Your task to perform on an android device: install app "Messenger Lite" Image 0: 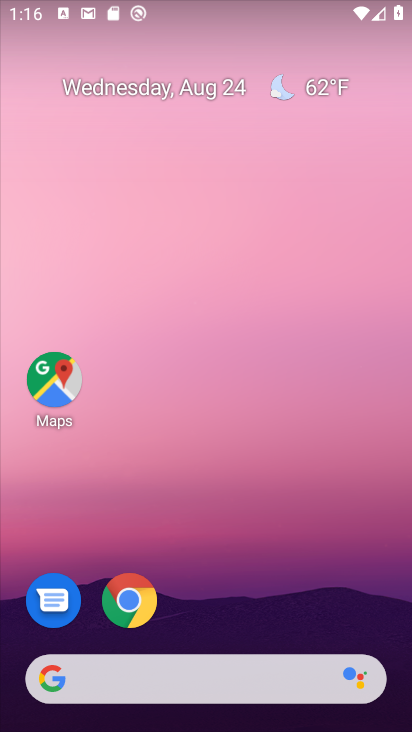
Step 0: drag from (286, 614) to (219, 99)
Your task to perform on an android device: install app "Messenger Lite" Image 1: 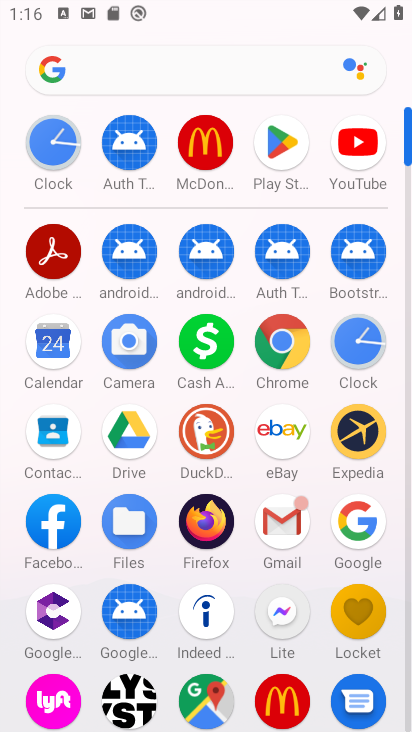
Step 1: click (293, 160)
Your task to perform on an android device: install app "Messenger Lite" Image 2: 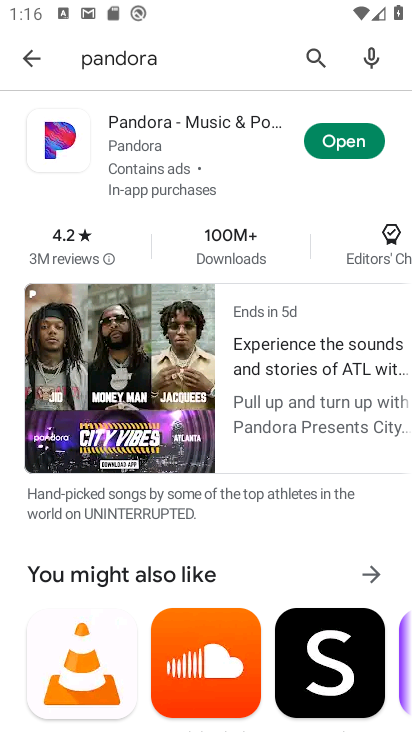
Step 2: click (309, 68)
Your task to perform on an android device: install app "Messenger Lite" Image 3: 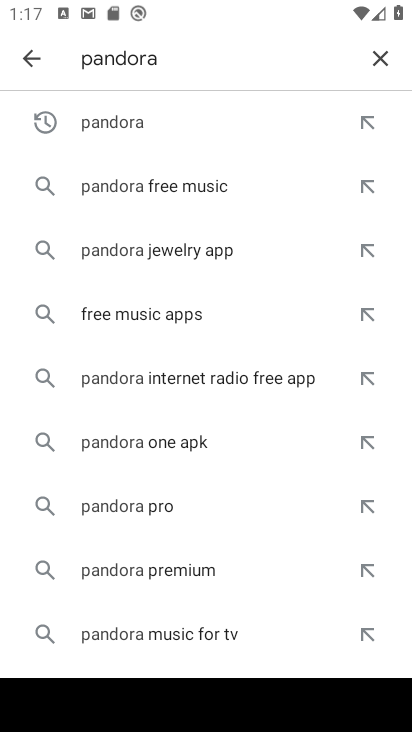
Step 3: click (375, 57)
Your task to perform on an android device: install app "Messenger Lite" Image 4: 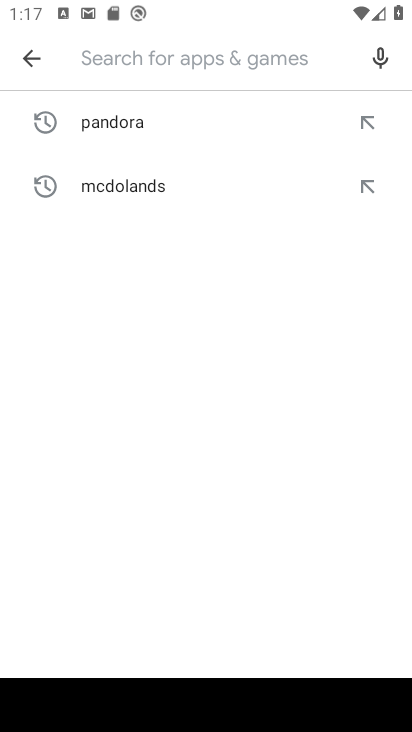
Step 4: type "messanger"
Your task to perform on an android device: install app "Messenger Lite" Image 5: 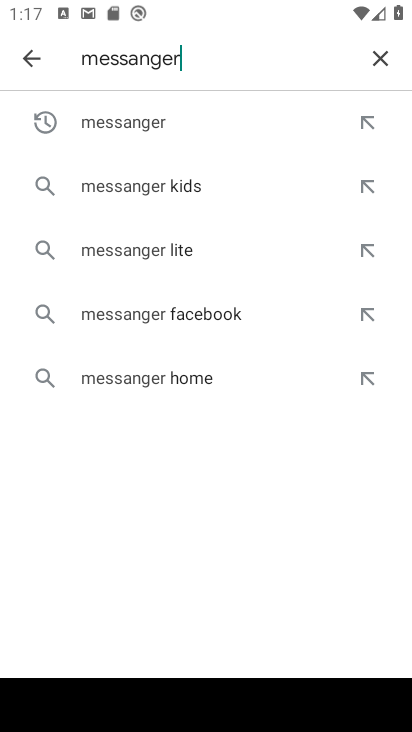
Step 5: click (121, 101)
Your task to perform on an android device: install app "Messenger Lite" Image 6: 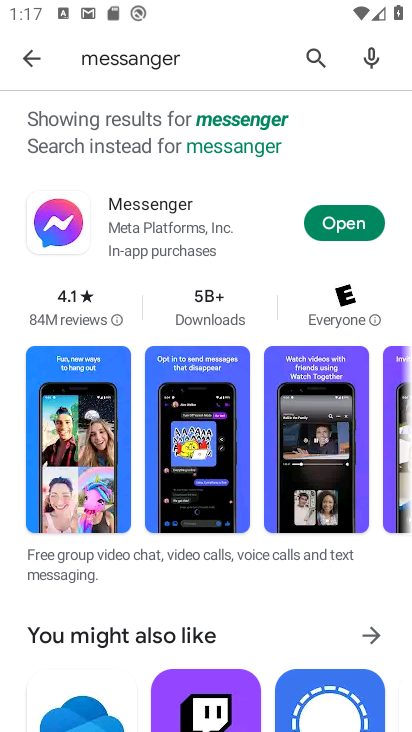
Step 6: click (348, 221)
Your task to perform on an android device: install app "Messenger Lite" Image 7: 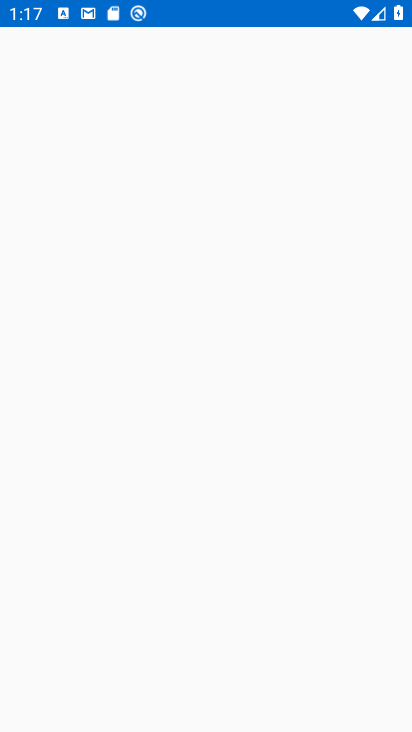
Step 7: task complete